Your task to perform on an android device: Search for vegetarian restaurants on Maps Image 0: 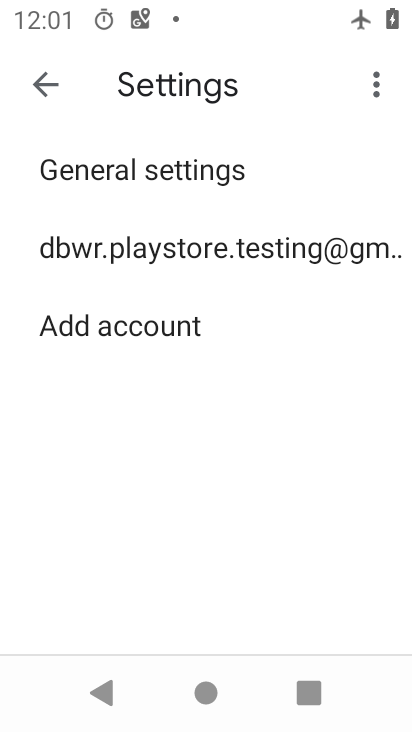
Step 0: press home button
Your task to perform on an android device: Search for vegetarian restaurants on Maps Image 1: 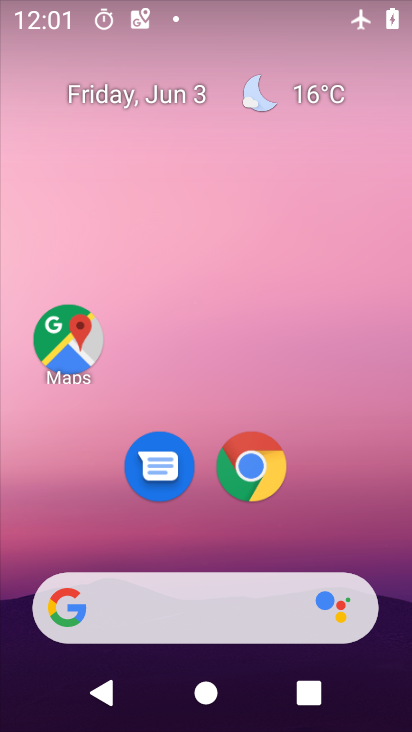
Step 1: click (194, 548)
Your task to perform on an android device: Search for vegetarian restaurants on Maps Image 2: 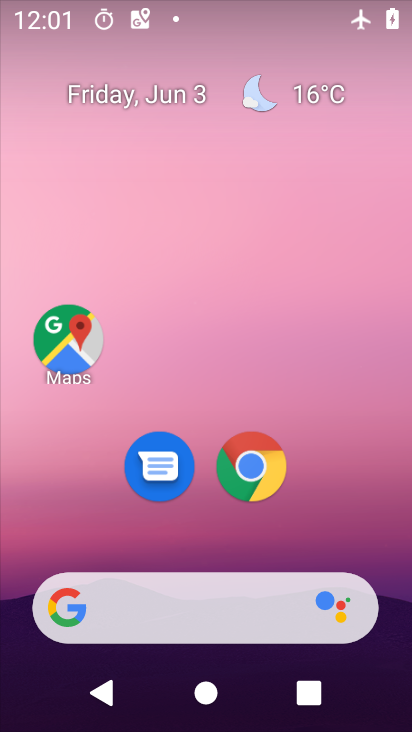
Step 2: click (47, 376)
Your task to perform on an android device: Search for vegetarian restaurants on Maps Image 3: 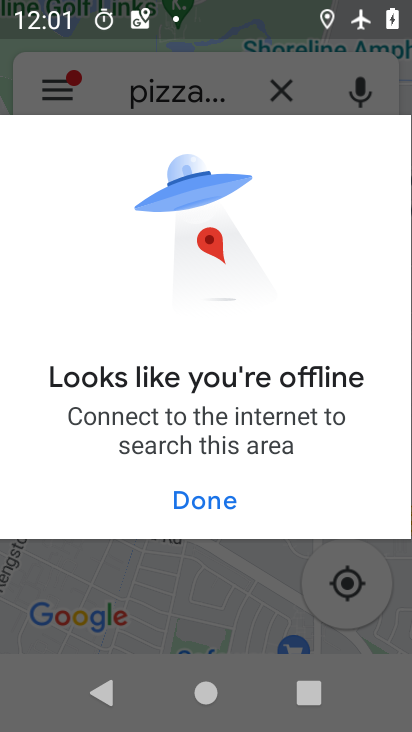
Step 3: task complete